Your task to perform on an android device: Go to Amazon Image 0: 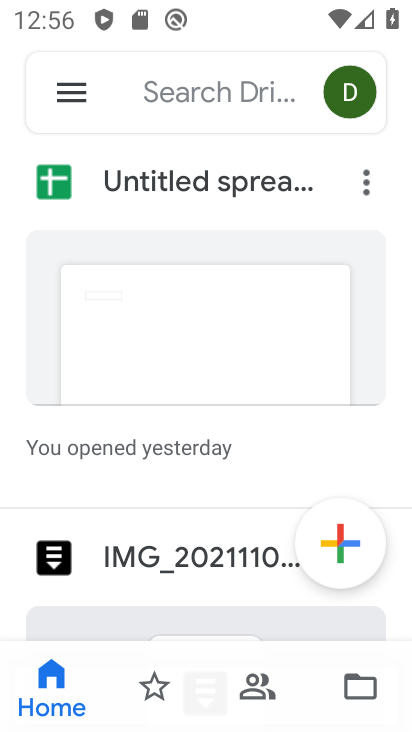
Step 0: drag from (219, 724) to (223, 132)
Your task to perform on an android device: Go to Amazon Image 1: 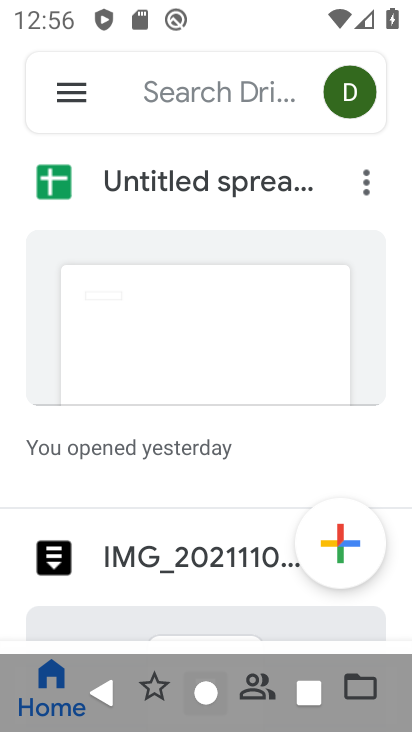
Step 1: press home button
Your task to perform on an android device: Go to Amazon Image 2: 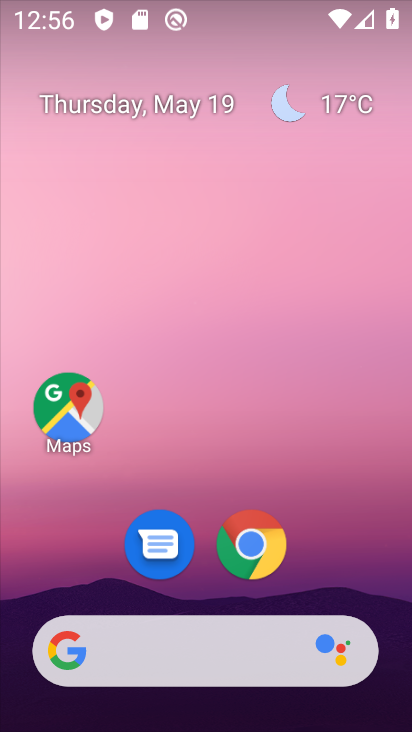
Step 2: drag from (224, 727) to (273, 81)
Your task to perform on an android device: Go to Amazon Image 3: 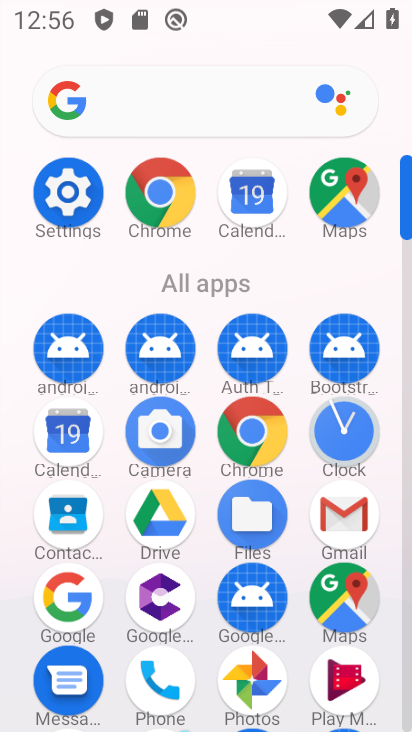
Step 3: click (254, 433)
Your task to perform on an android device: Go to Amazon Image 4: 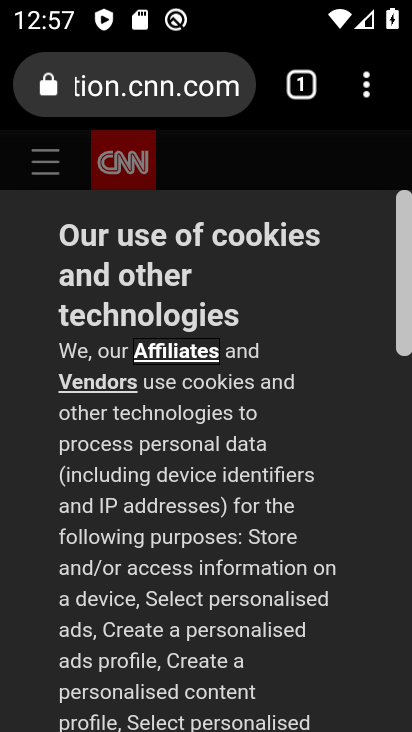
Step 4: click (366, 95)
Your task to perform on an android device: Go to Amazon Image 5: 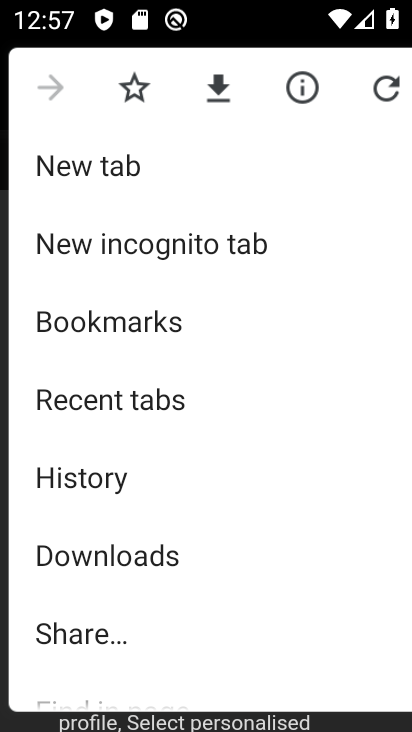
Step 5: click (93, 162)
Your task to perform on an android device: Go to Amazon Image 6: 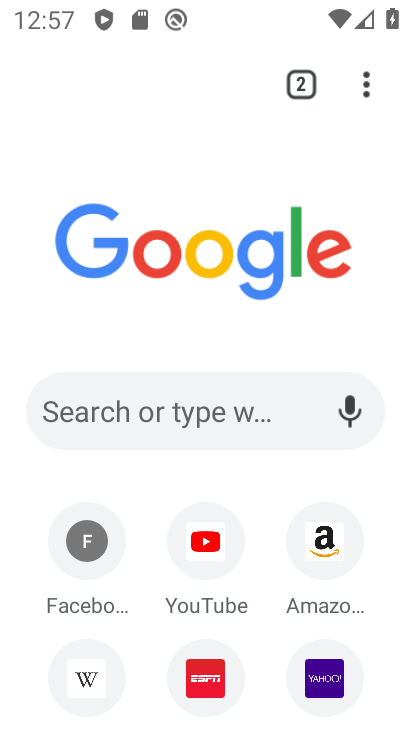
Step 6: click (191, 420)
Your task to perform on an android device: Go to Amazon Image 7: 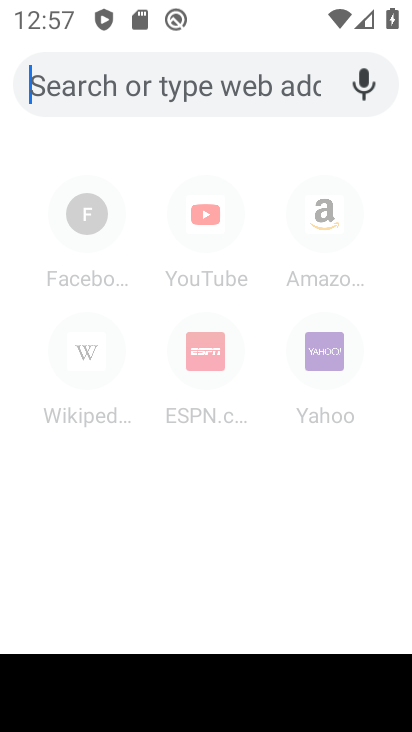
Step 7: type "Amazon"
Your task to perform on an android device: Go to Amazon Image 8: 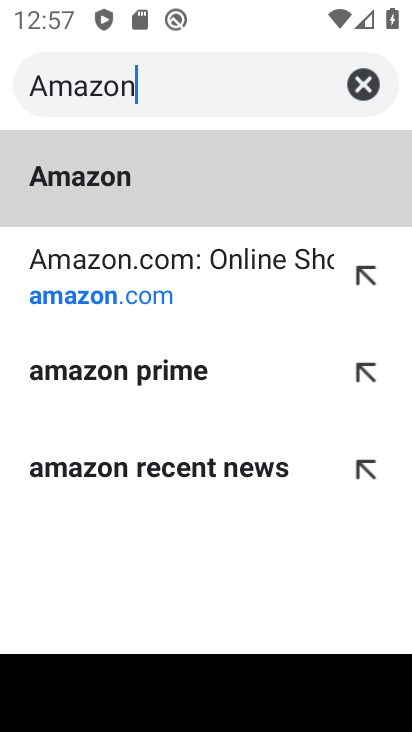
Step 8: click (145, 169)
Your task to perform on an android device: Go to Amazon Image 9: 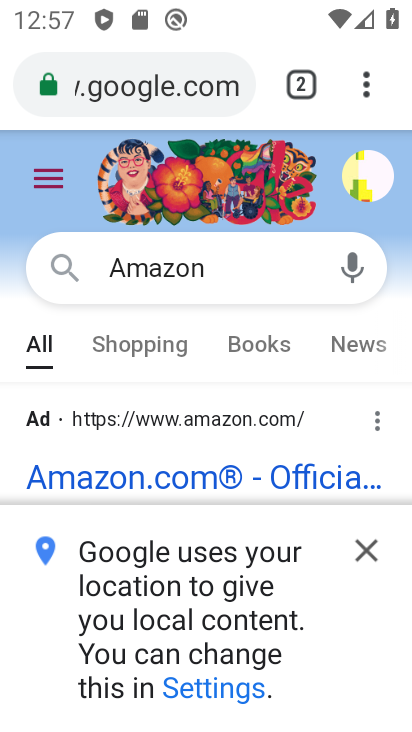
Step 9: click (101, 483)
Your task to perform on an android device: Go to Amazon Image 10: 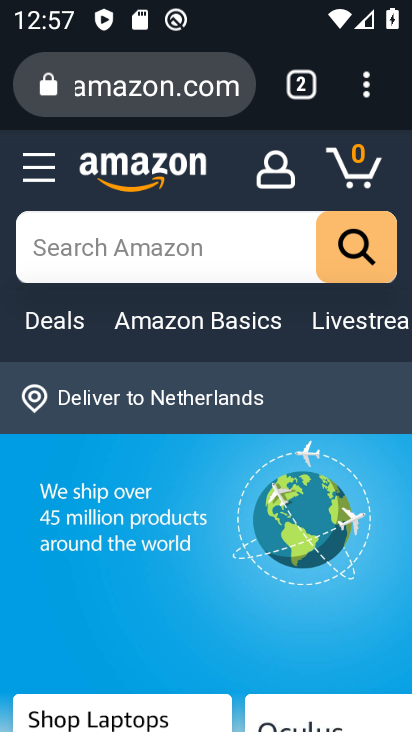
Step 10: task complete